Your task to perform on an android device: Open the Play Movies app and select the watchlist tab. Image 0: 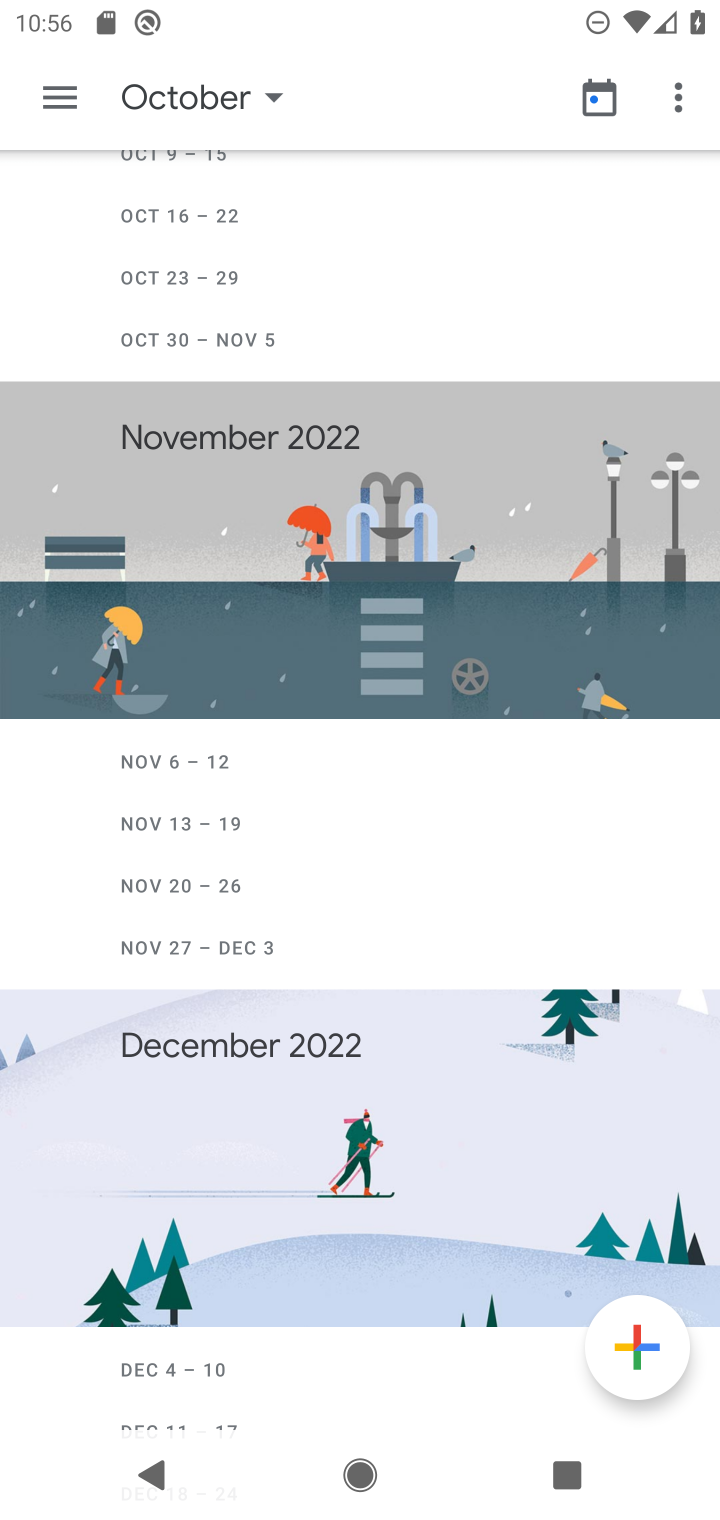
Step 0: press home button
Your task to perform on an android device: Open the Play Movies app and select the watchlist tab. Image 1: 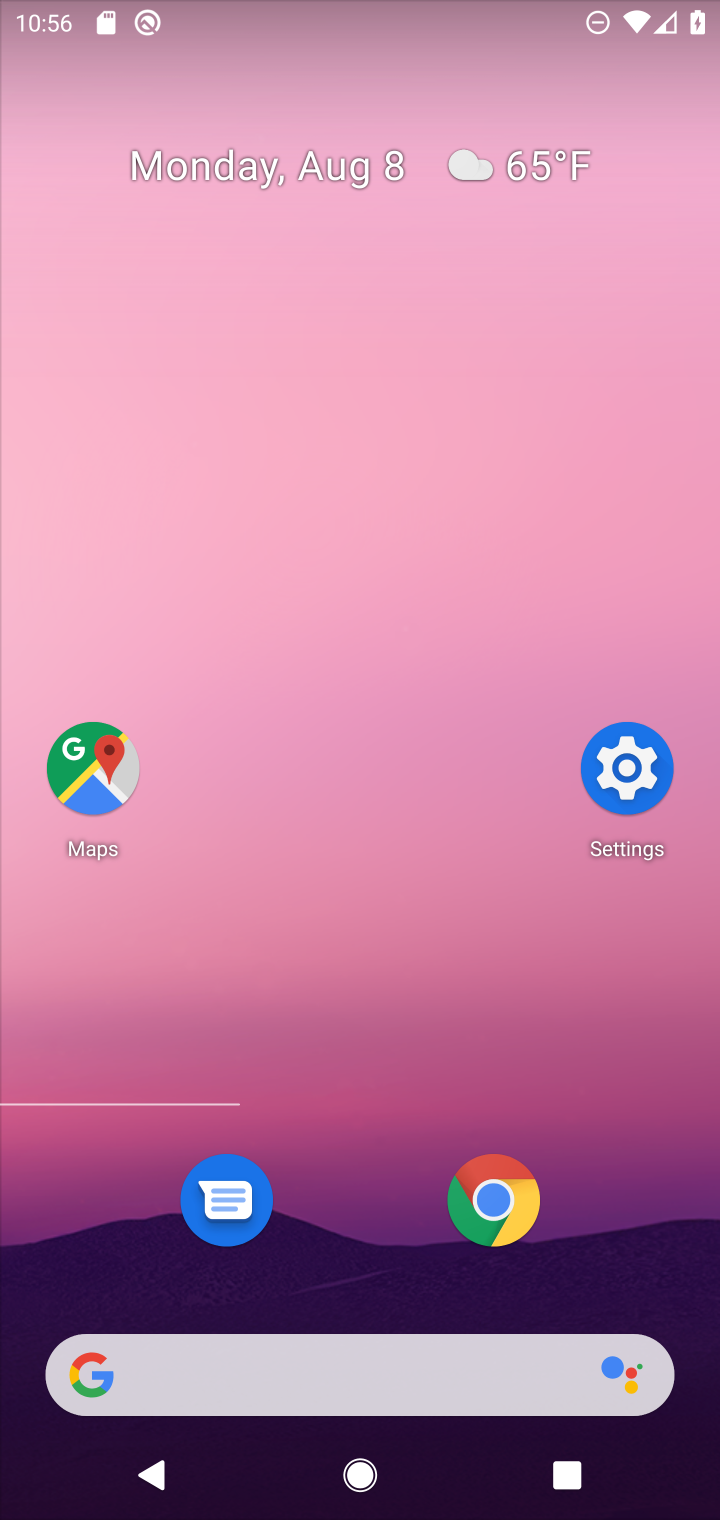
Step 1: drag from (270, 1374) to (504, 324)
Your task to perform on an android device: Open the Play Movies app and select the watchlist tab. Image 2: 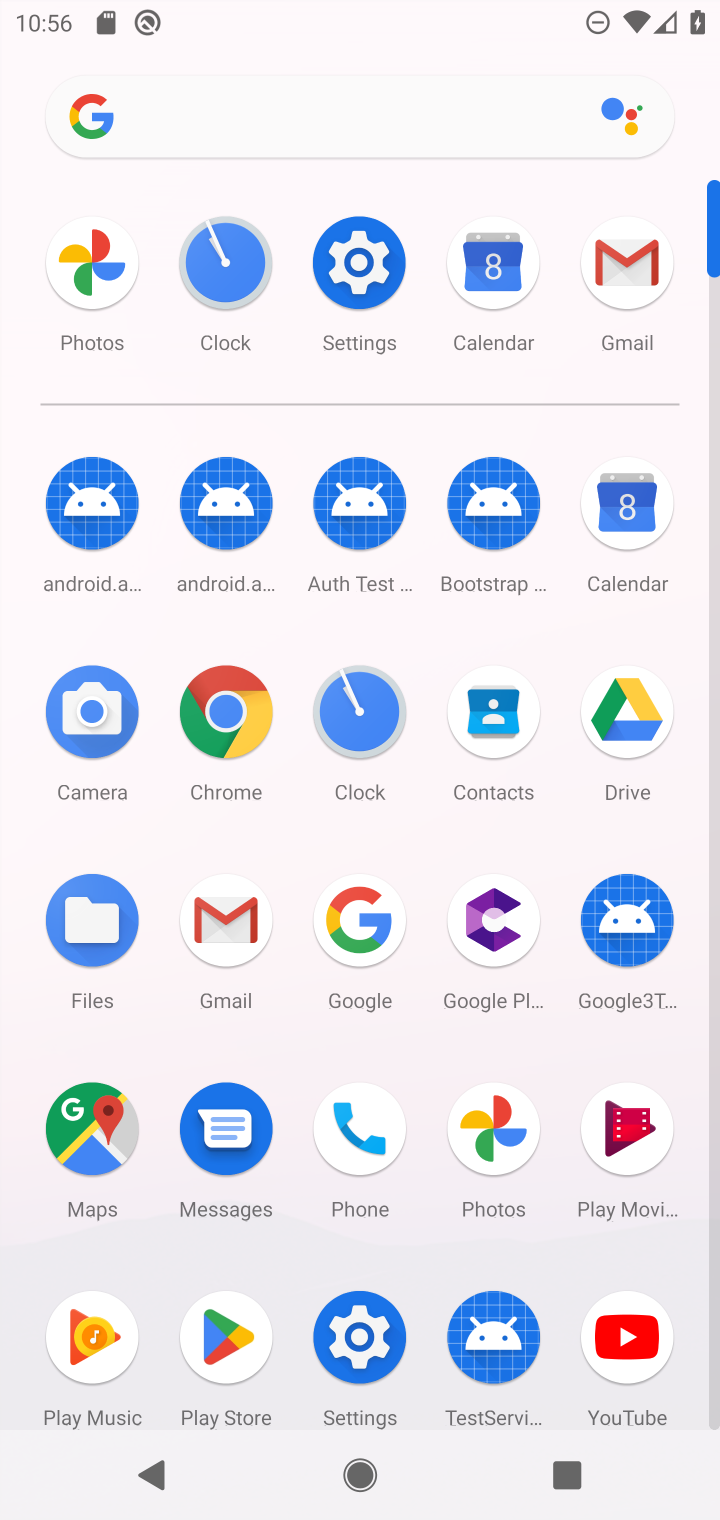
Step 2: click (624, 1136)
Your task to perform on an android device: Open the Play Movies app and select the watchlist tab. Image 3: 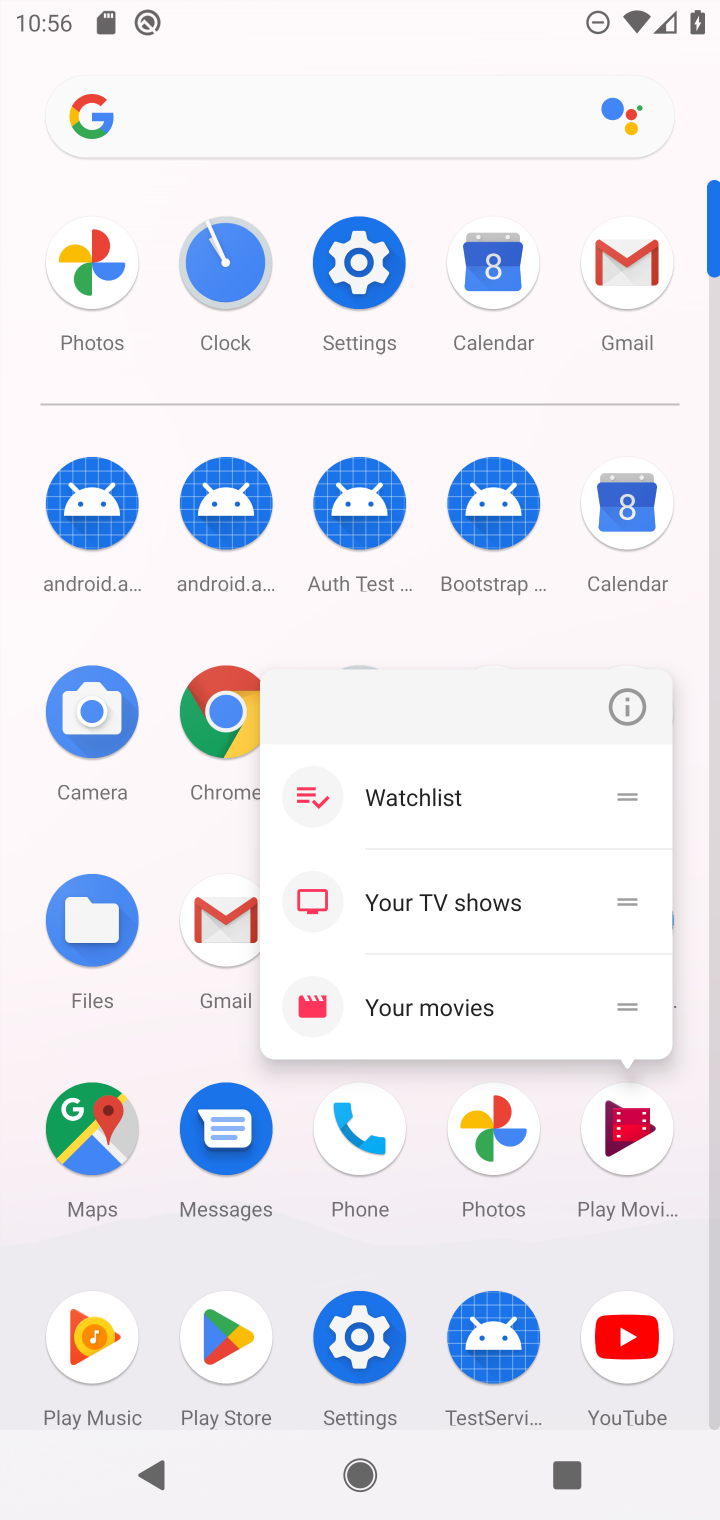
Step 3: click (625, 1136)
Your task to perform on an android device: Open the Play Movies app and select the watchlist tab. Image 4: 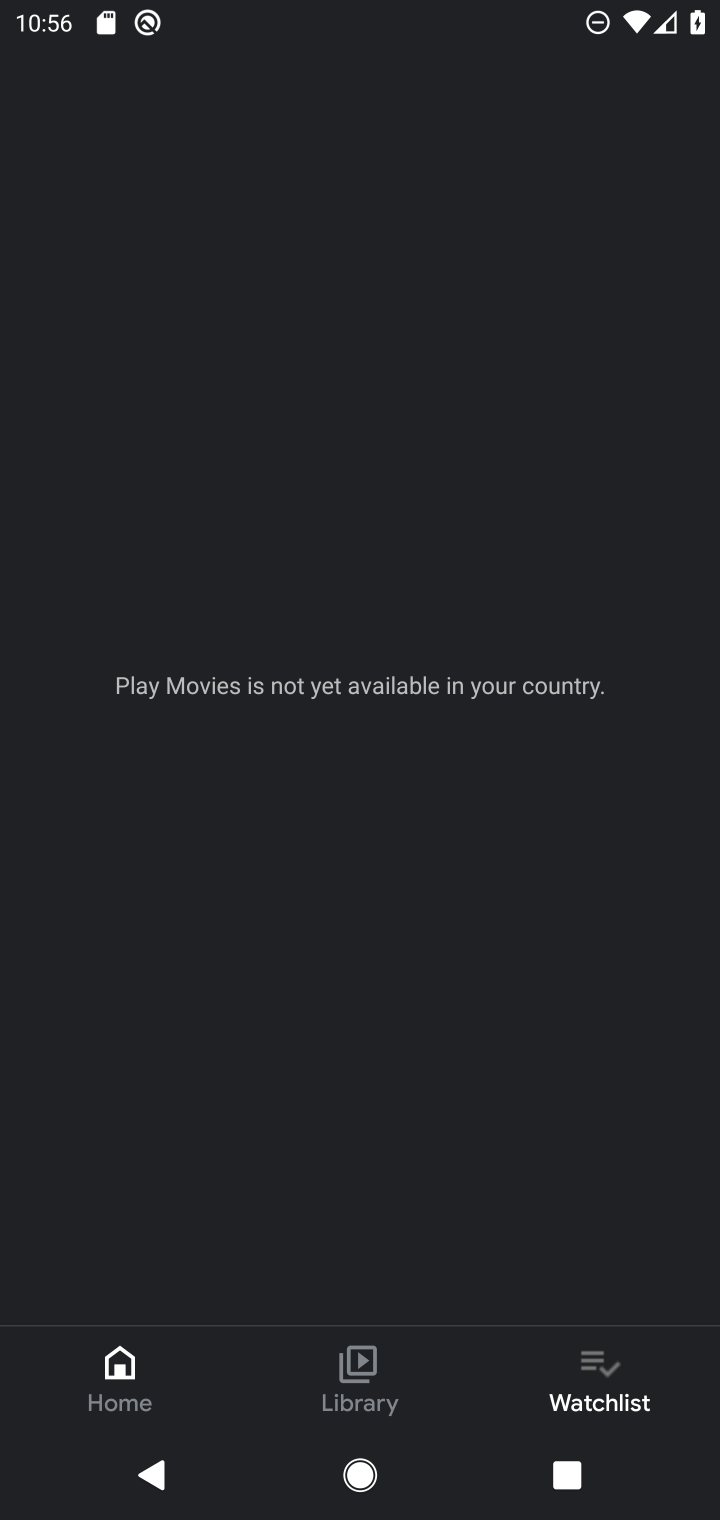
Step 4: click (600, 1386)
Your task to perform on an android device: Open the Play Movies app and select the watchlist tab. Image 5: 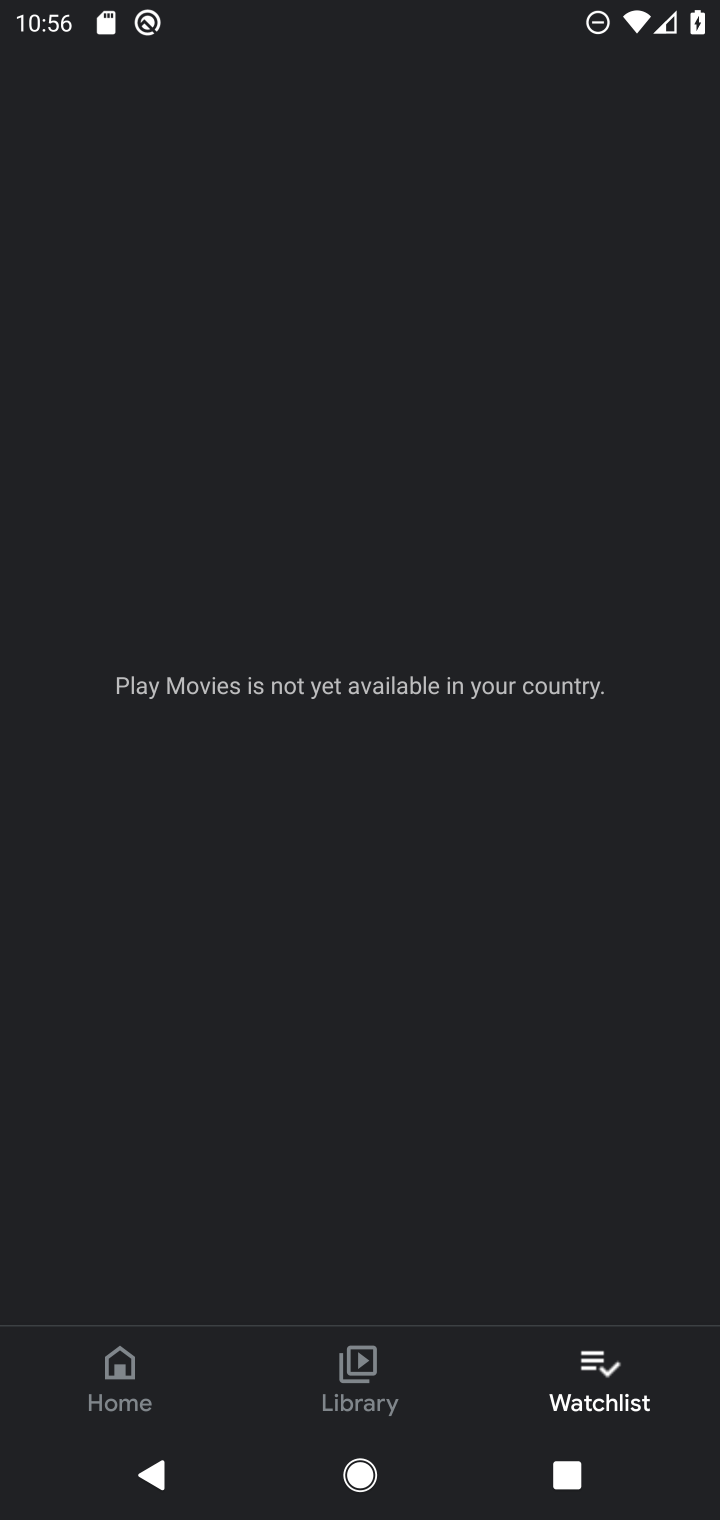
Step 5: task complete